Your task to perform on an android device: delete the emails in spam in the gmail app Image 0: 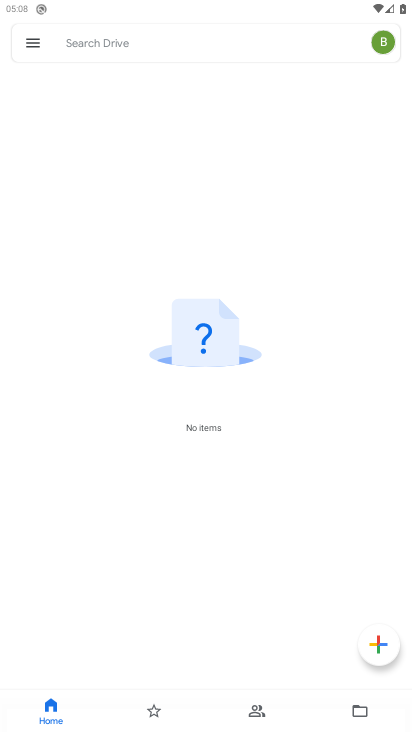
Step 0: press home button
Your task to perform on an android device: delete the emails in spam in the gmail app Image 1: 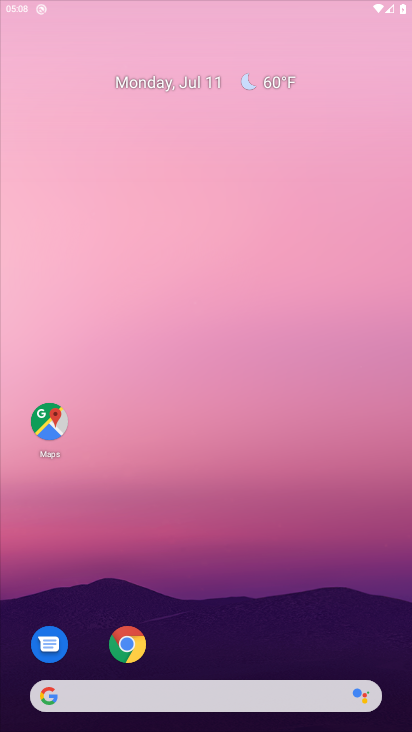
Step 1: click (183, 359)
Your task to perform on an android device: delete the emails in spam in the gmail app Image 2: 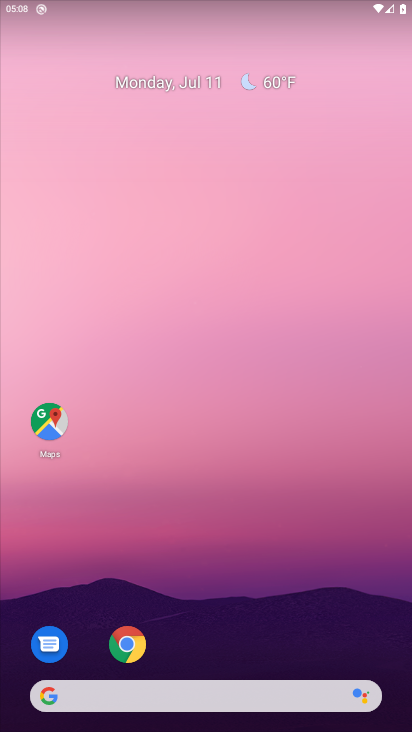
Step 2: drag from (227, 679) to (224, 88)
Your task to perform on an android device: delete the emails in spam in the gmail app Image 3: 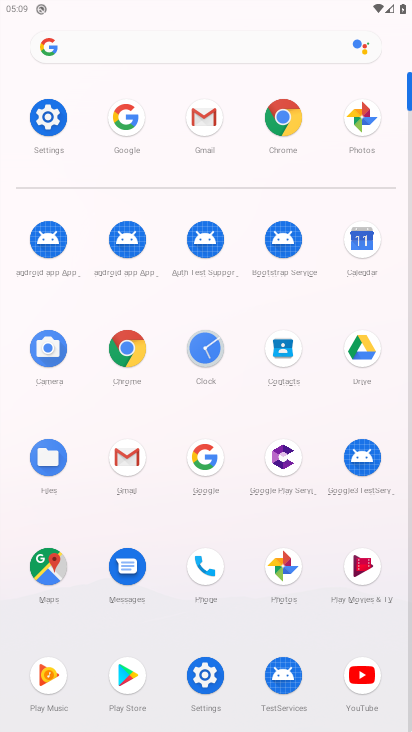
Step 3: click (131, 450)
Your task to perform on an android device: delete the emails in spam in the gmail app Image 4: 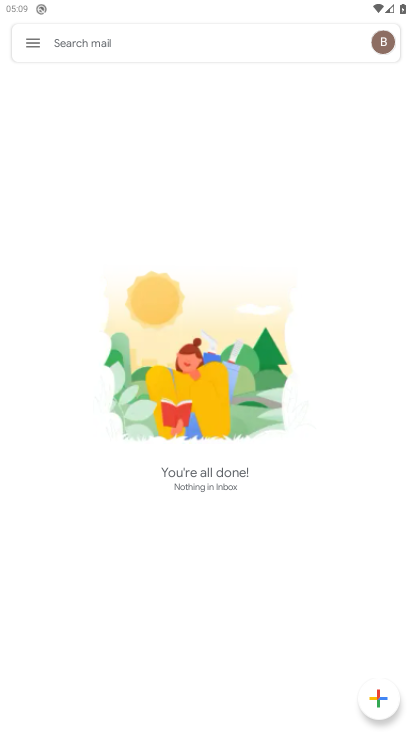
Step 4: click (27, 39)
Your task to perform on an android device: delete the emails in spam in the gmail app Image 5: 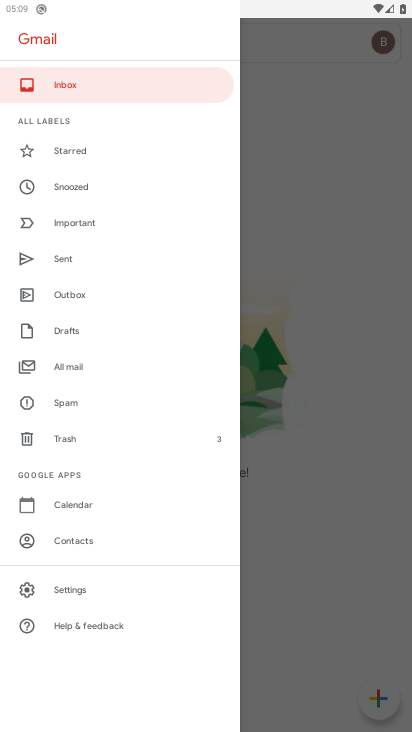
Step 5: click (69, 399)
Your task to perform on an android device: delete the emails in spam in the gmail app Image 6: 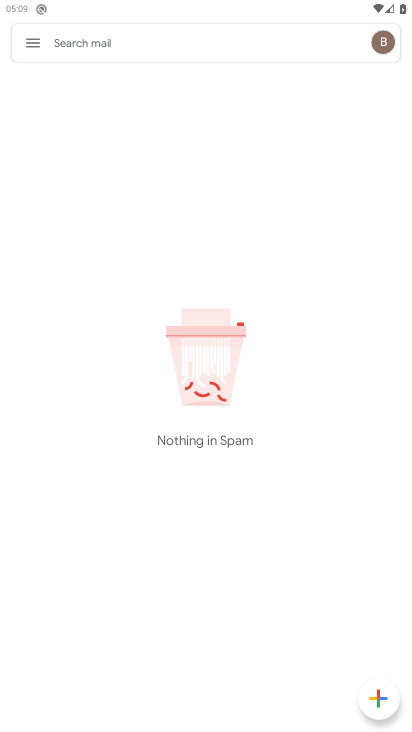
Step 6: task complete